Your task to perform on an android device: What's the weather going to be this weekend? Image 0: 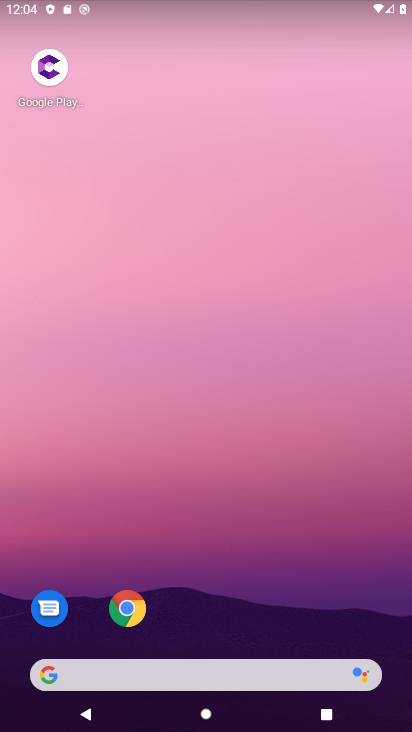
Step 0: drag from (236, 424) to (180, 167)
Your task to perform on an android device: What's the weather going to be this weekend? Image 1: 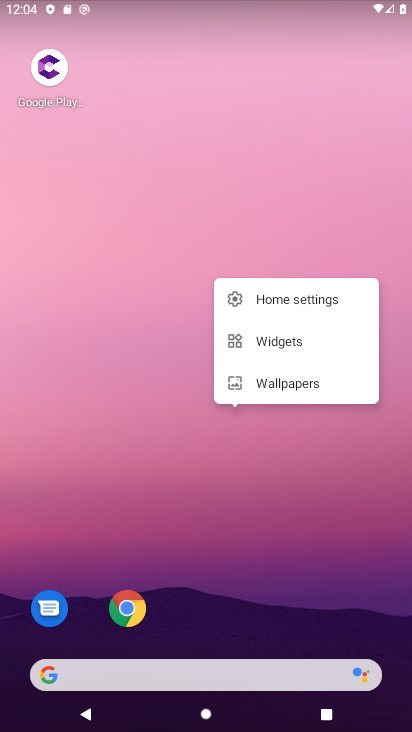
Step 1: click (137, 259)
Your task to perform on an android device: What's the weather going to be this weekend? Image 2: 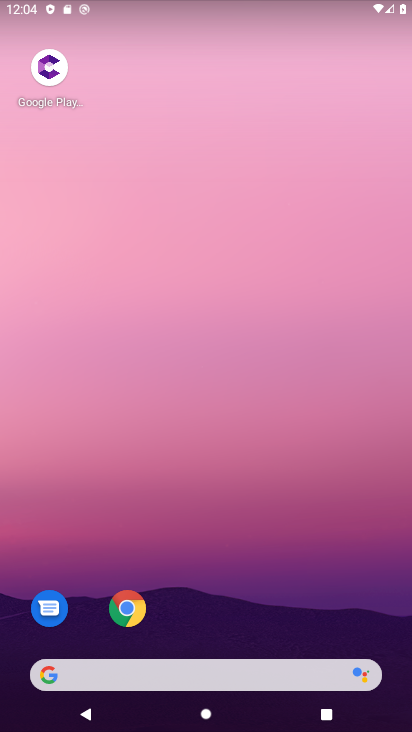
Step 2: drag from (148, 313) to (119, 121)
Your task to perform on an android device: What's the weather going to be this weekend? Image 3: 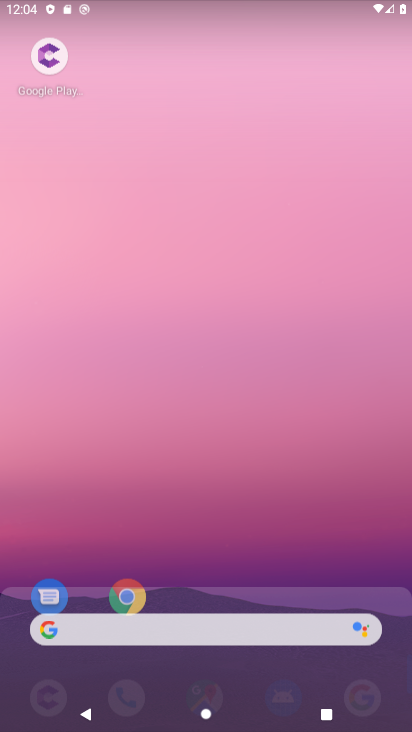
Step 3: drag from (178, 567) to (178, 144)
Your task to perform on an android device: What's the weather going to be this weekend? Image 4: 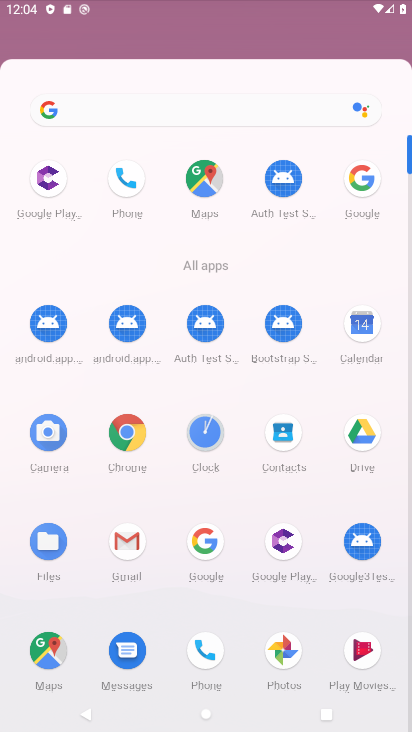
Step 4: drag from (246, 507) to (259, 163)
Your task to perform on an android device: What's the weather going to be this weekend? Image 5: 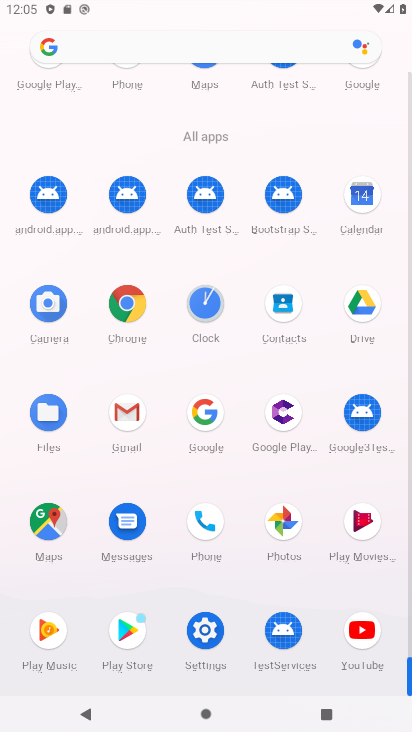
Step 5: click (120, 308)
Your task to perform on an android device: What's the weather going to be this weekend? Image 6: 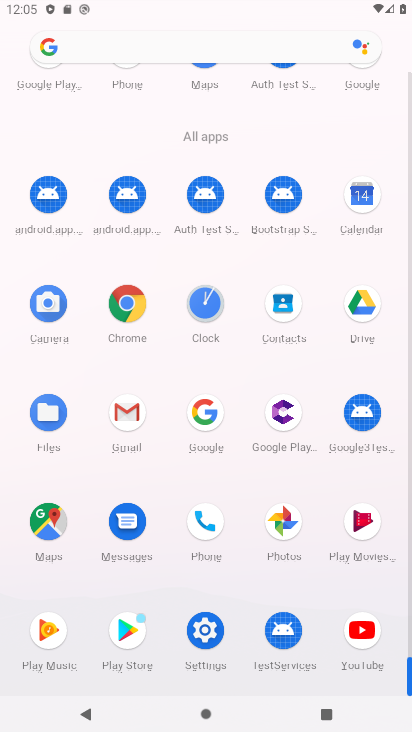
Step 6: click (120, 308)
Your task to perform on an android device: What's the weather going to be this weekend? Image 7: 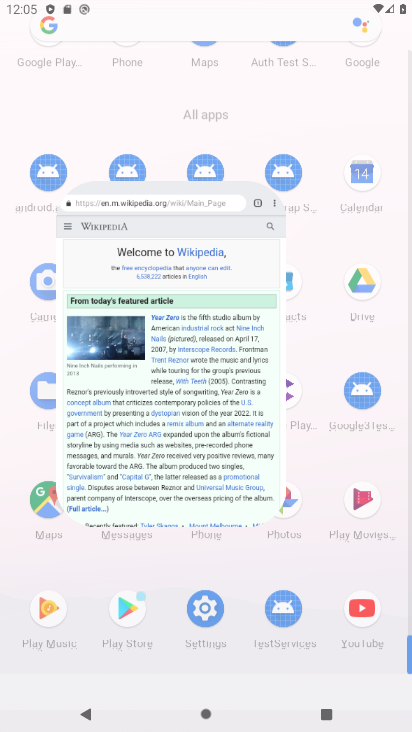
Step 7: click (120, 308)
Your task to perform on an android device: What's the weather going to be this weekend? Image 8: 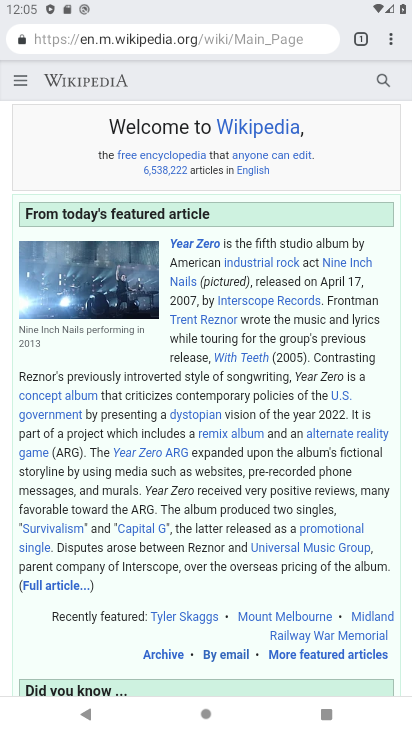
Step 8: click (383, 42)
Your task to perform on an android device: What's the weather going to be this weekend? Image 9: 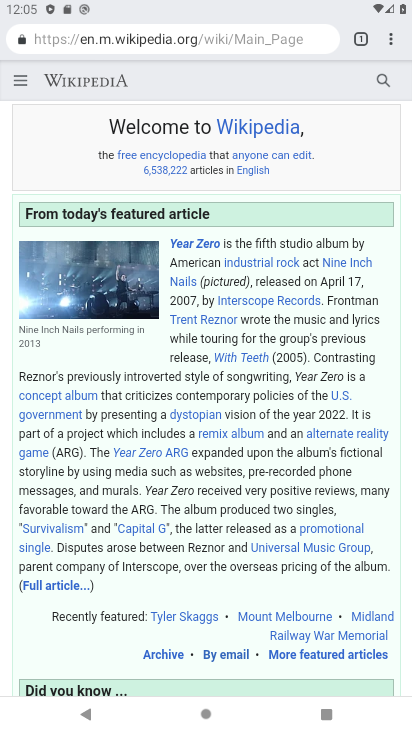
Step 9: drag from (390, 37) to (259, 75)
Your task to perform on an android device: What's the weather going to be this weekend? Image 10: 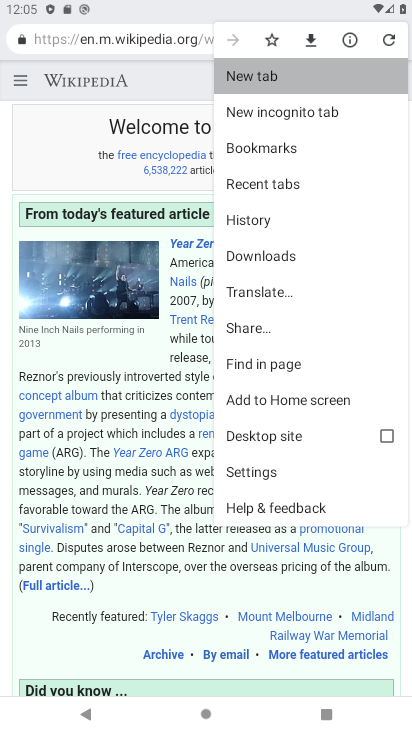
Step 10: click (253, 79)
Your task to perform on an android device: What's the weather going to be this weekend? Image 11: 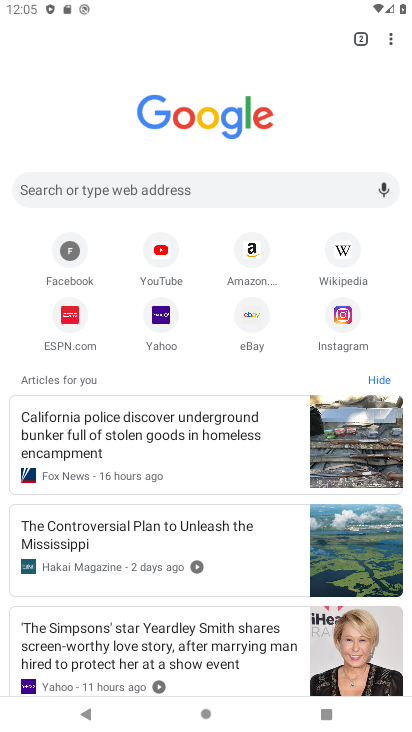
Step 11: click (86, 178)
Your task to perform on an android device: What's the weather going to be this weekend? Image 12: 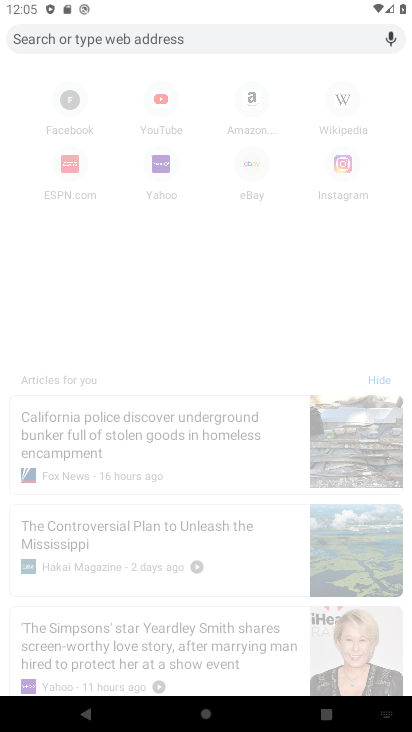
Step 12: type "what's the weather going to be this weekend"
Your task to perform on an android device: What's the weather going to be this weekend? Image 13: 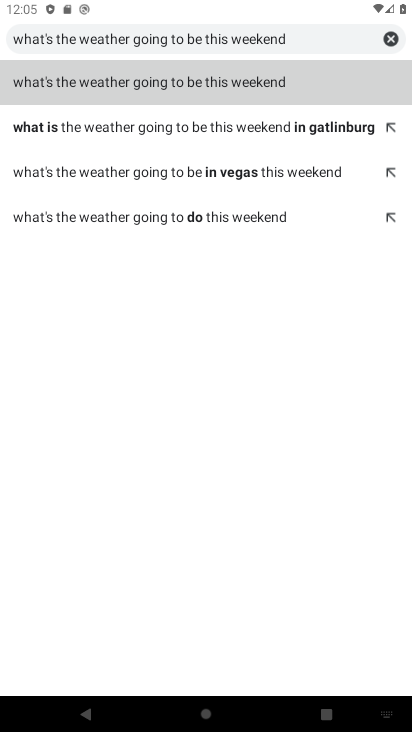
Step 13: click (301, 91)
Your task to perform on an android device: What's the weather going to be this weekend? Image 14: 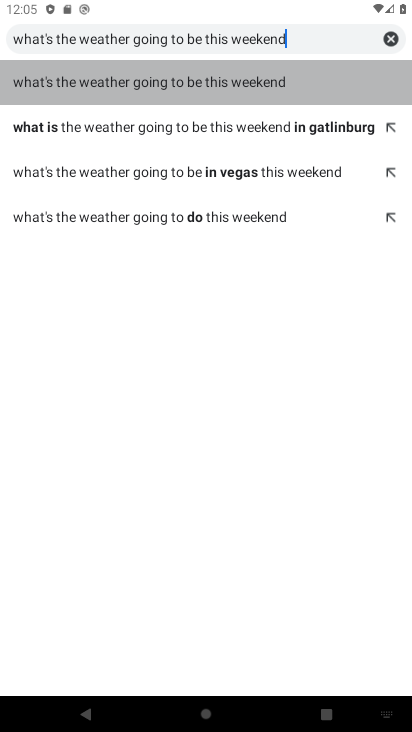
Step 14: click (297, 94)
Your task to perform on an android device: What's the weather going to be this weekend? Image 15: 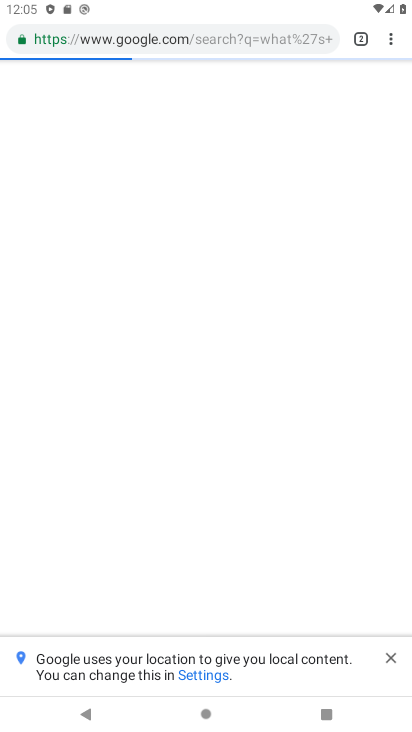
Step 15: click (297, 94)
Your task to perform on an android device: What's the weather going to be this weekend? Image 16: 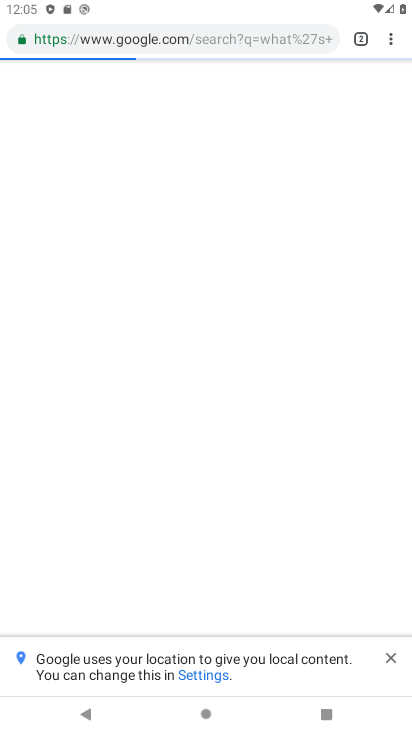
Step 16: click (297, 94)
Your task to perform on an android device: What's the weather going to be this weekend? Image 17: 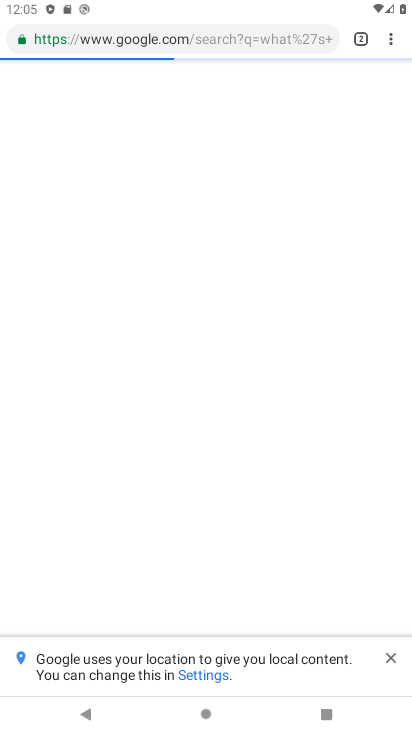
Step 17: click (222, 67)
Your task to perform on an android device: What's the weather going to be this weekend? Image 18: 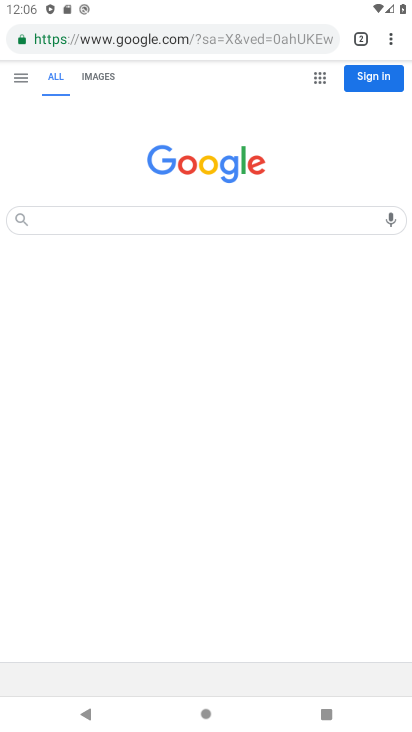
Step 18: task complete